Your task to perform on an android device: turn off wifi Image 0: 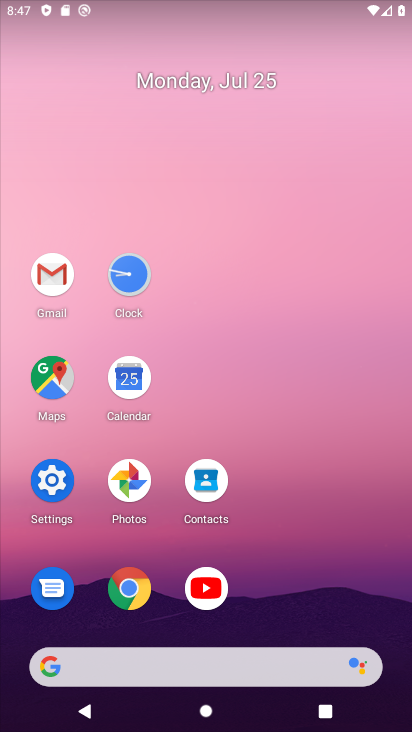
Step 0: click (50, 473)
Your task to perform on an android device: turn off wifi Image 1: 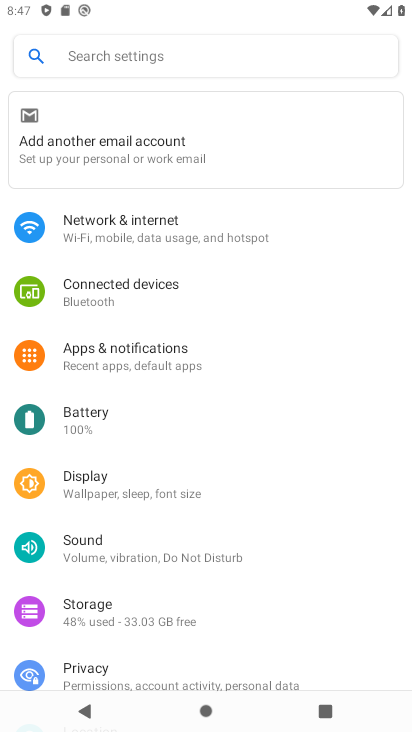
Step 1: click (115, 212)
Your task to perform on an android device: turn off wifi Image 2: 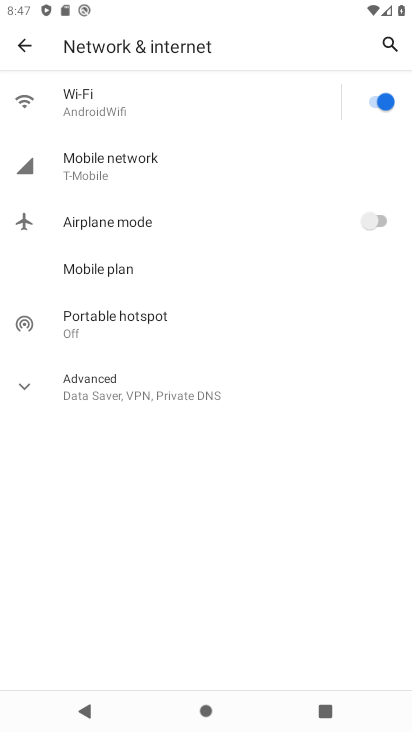
Step 2: click (377, 98)
Your task to perform on an android device: turn off wifi Image 3: 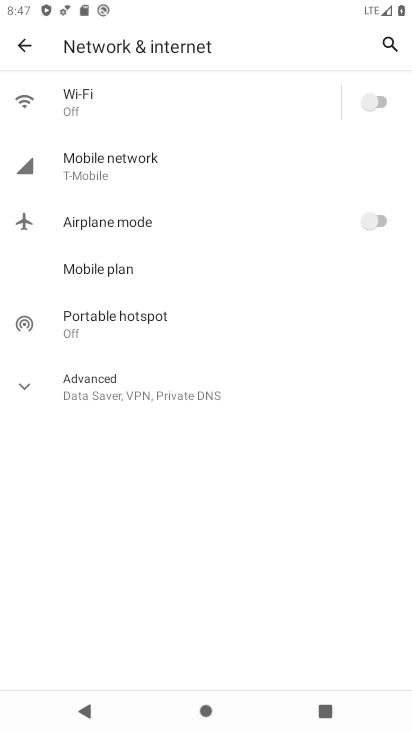
Step 3: task complete